Your task to perform on an android device: Open settings on Google Maps Image 0: 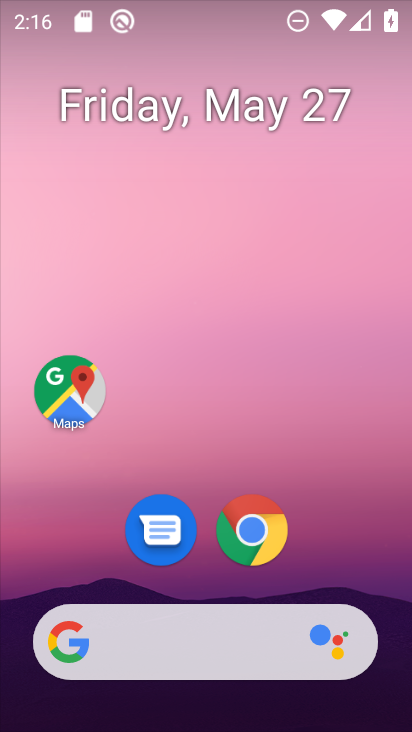
Step 0: click (55, 402)
Your task to perform on an android device: Open settings on Google Maps Image 1: 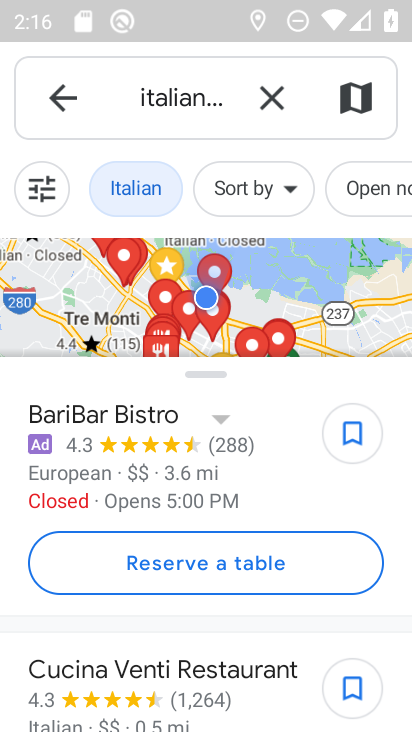
Step 1: click (269, 96)
Your task to perform on an android device: Open settings on Google Maps Image 2: 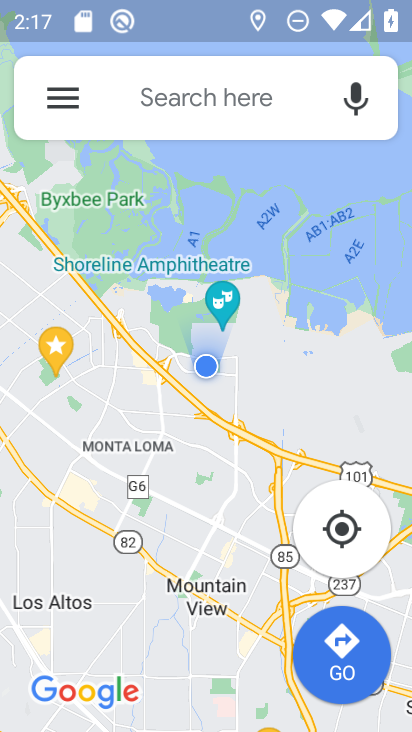
Step 2: click (58, 103)
Your task to perform on an android device: Open settings on Google Maps Image 3: 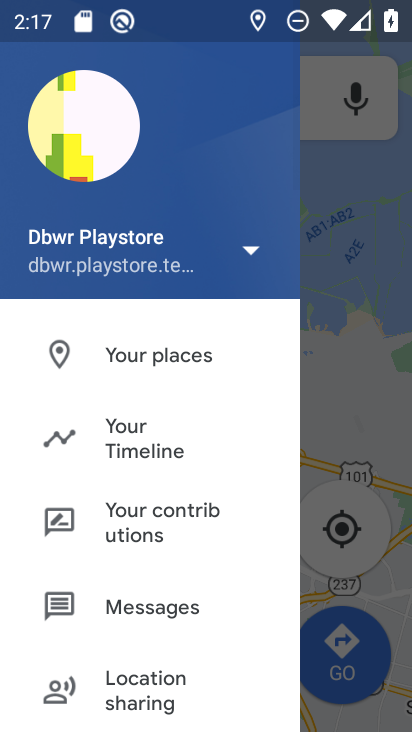
Step 3: drag from (206, 612) to (212, 254)
Your task to perform on an android device: Open settings on Google Maps Image 4: 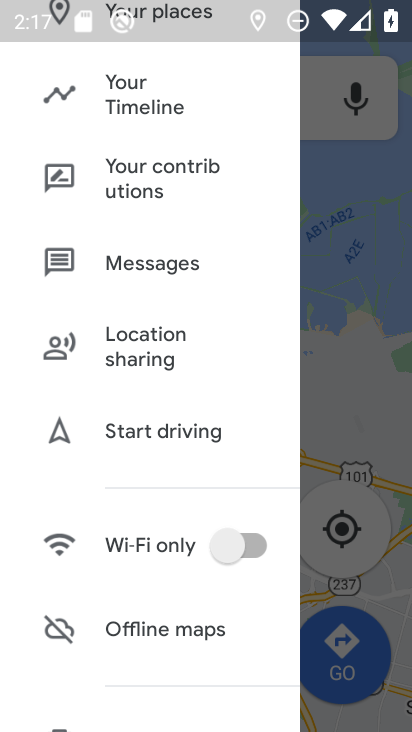
Step 4: drag from (190, 664) to (242, 194)
Your task to perform on an android device: Open settings on Google Maps Image 5: 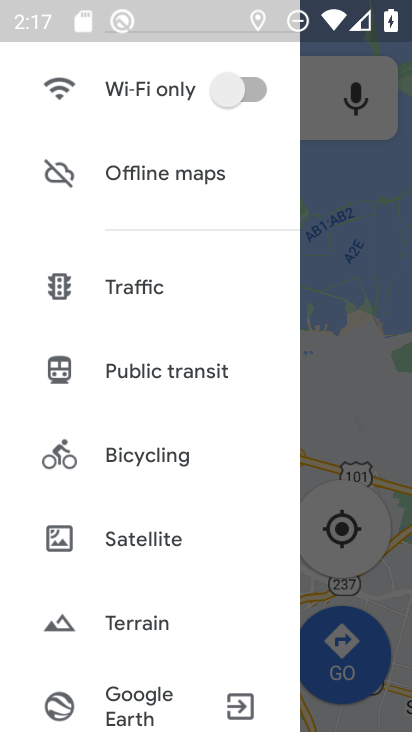
Step 5: drag from (200, 611) to (204, 236)
Your task to perform on an android device: Open settings on Google Maps Image 6: 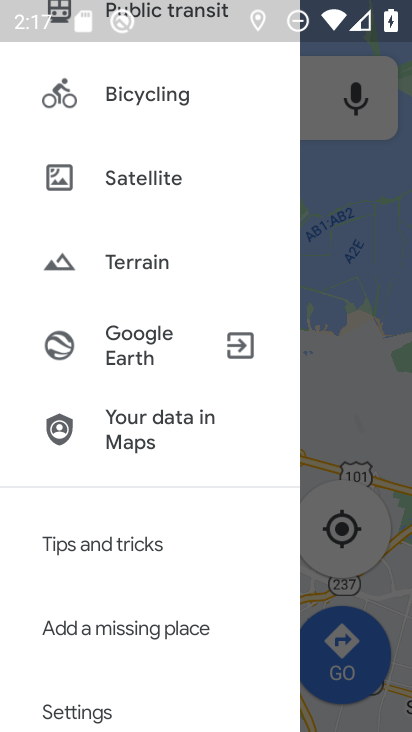
Step 6: click (58, 702)
Your task to perform on an android device: Open settings on Google Maps Image 7: 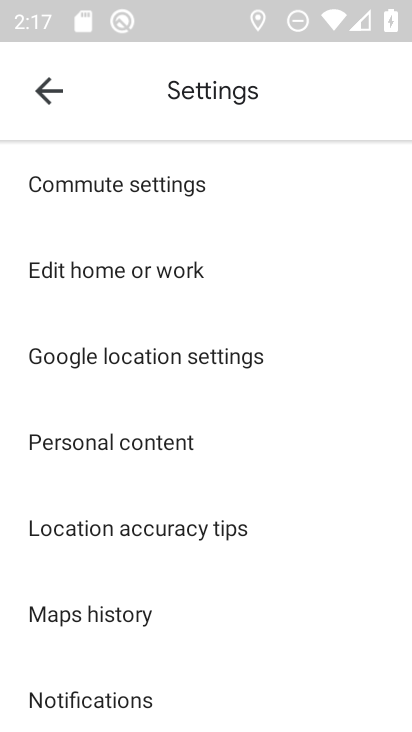
Step 7: task complete